Your task to perform on an android device: open app "Pluto TV - Live TV and Movies" (install if not already installed) Image 0: 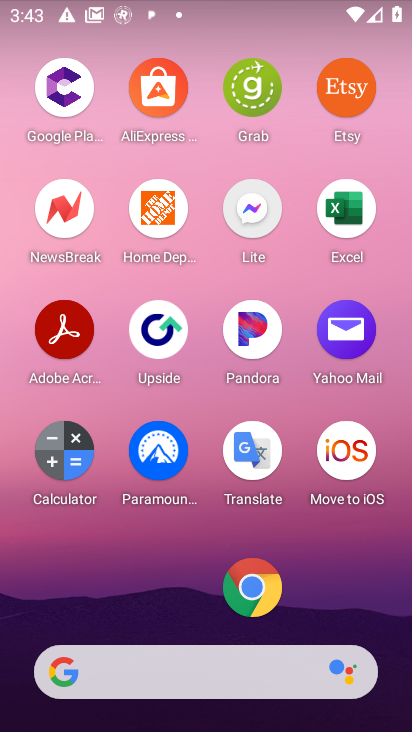
Step 0: drag from (153, 591) to (172, 104)
Your task to perform on an android device: open app "Pluto TV - Live TV and Movies" (install if not already installed) Image 1: 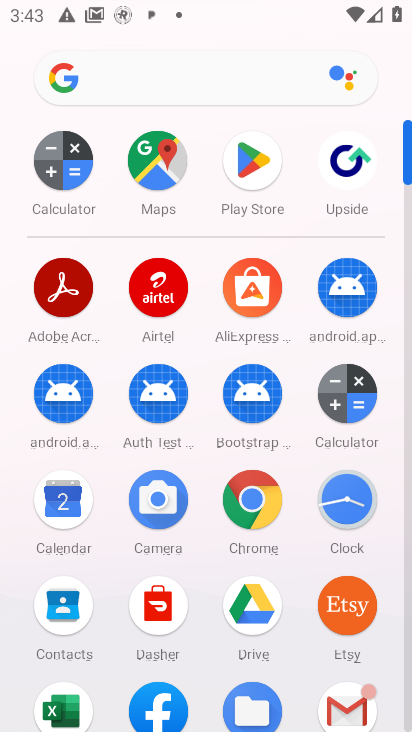
Step 1: click (253, 156)
Your task to perform on an android device: open app "Pluto TV - Live TV and Movies" (install if not already installed) Image 2: 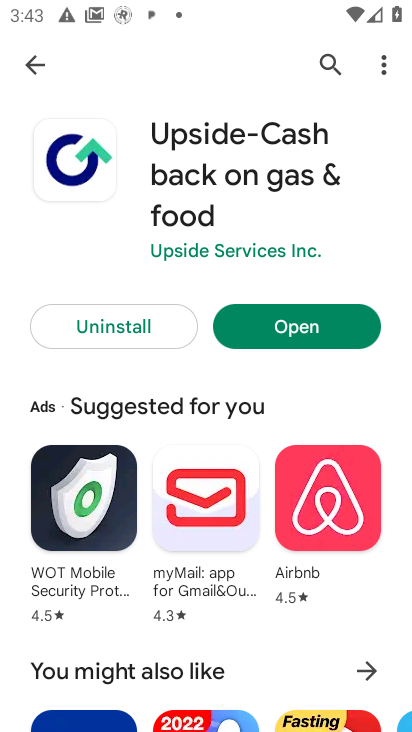
Step 2: click (323, 61)
Your task to perform on an android device: open app "Pluto TV - Live TV and Movies" (install if not already installed) Image 3: 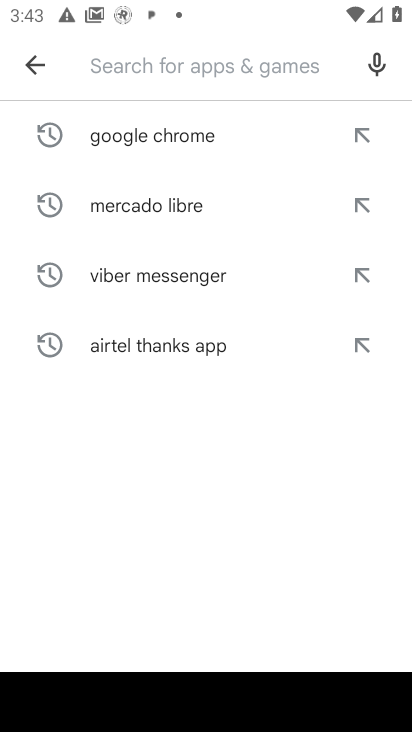
Step 3: type "Pluto TV - Live TV and Movies"
Your task to perform on an android device: open app "Pluto TV - Live TV and Movies" (install if not already installed) Image 4: 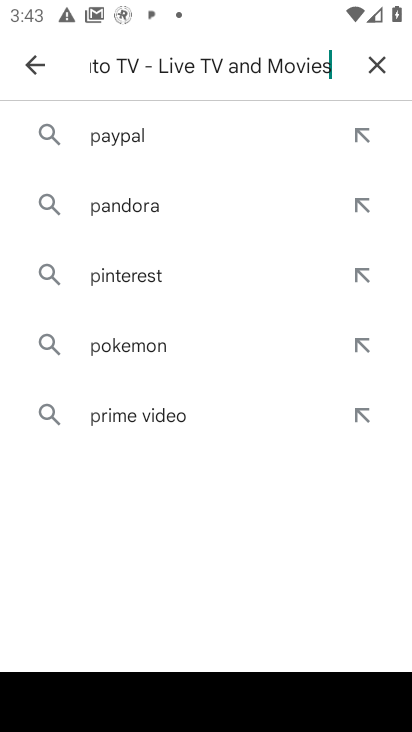
Step 4: type ""
Your task to perform on an android device: open app "Pluto TV - Live TV and Movies" (install if not already installed) Image 5: 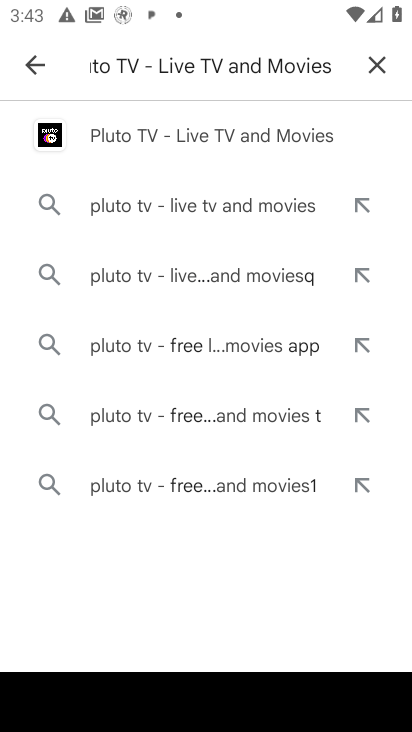
Step 5: click (186, 137)
Your task to perform on an android device: open app "Pluto TV - Live TV and Movies" (install if not already installed) Image 6: 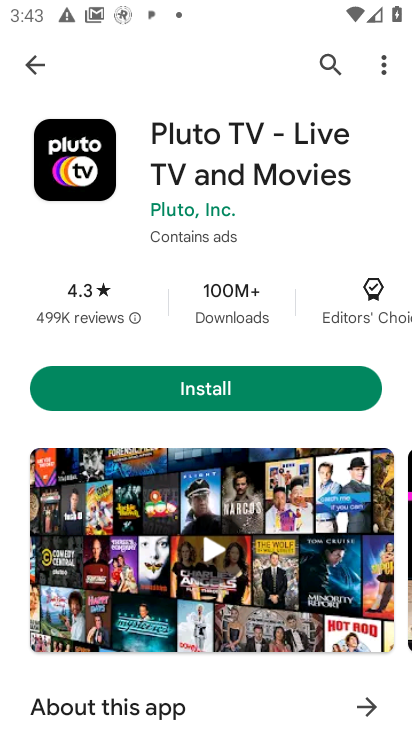
Step 6: click (213, 392)
Your task to perform on an android device: open app "Pluto TV - Live TV and Movies" (install if not already installed) Image 7: 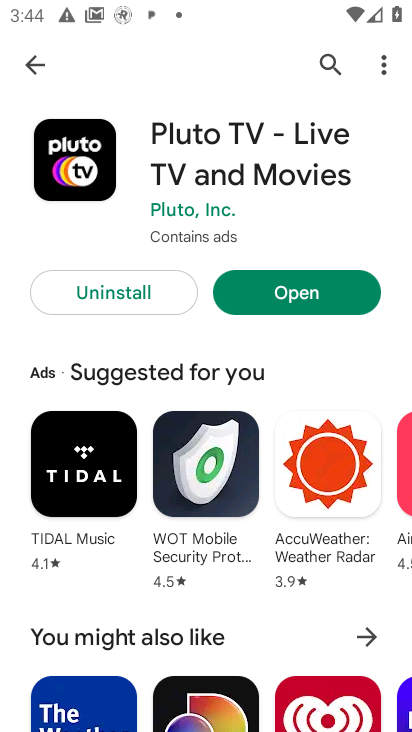
Step 7: click (279, 307)
Your task to perform on an android device: open app "Pluto TV - Live TV and Movies" (install if not already installed) Image 8: 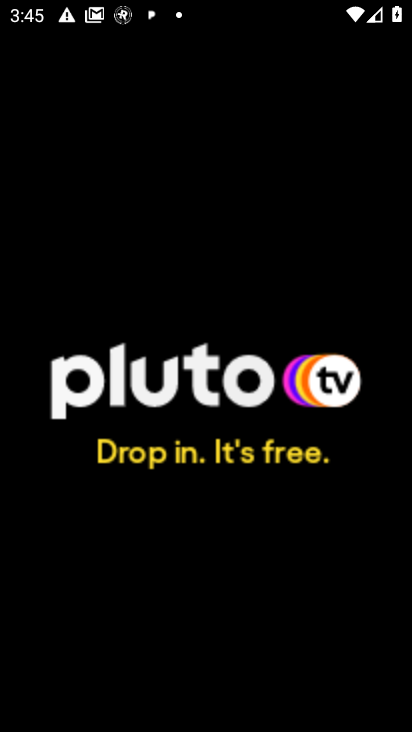
Step 8: task complete